Your task to perform on an android device: open the mobile data screen to see how much data has been used Image 0: 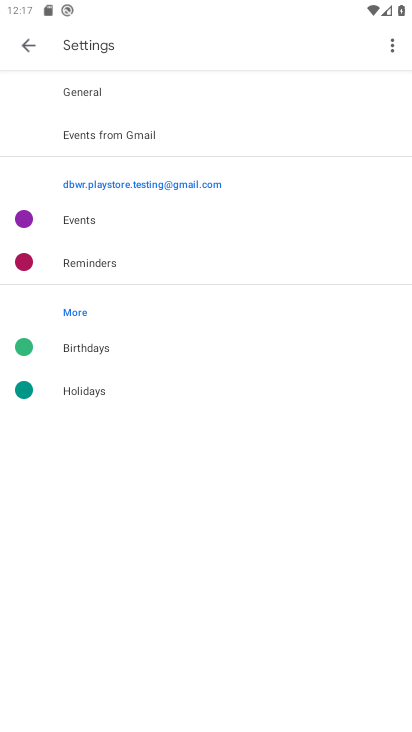
Step 0: press home button
Your task to perform on an android device: open the mobile data screen to see how much data has been used Image 1: 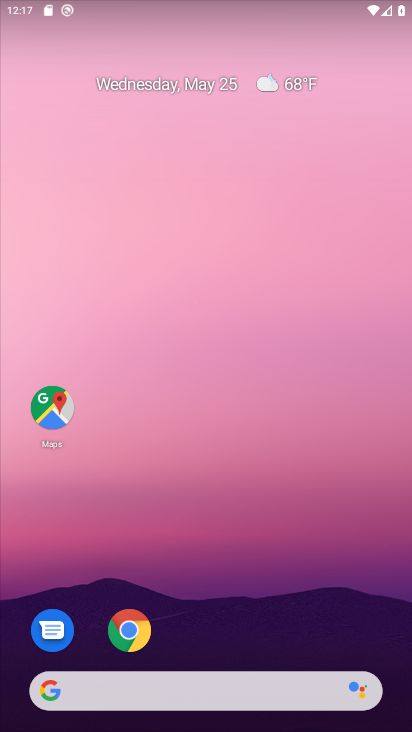
Step 1: drag from (212, 637) to (205, 159)
Your task to perform on an android device: open the mobile data screen to see how much data has been used Image 2: 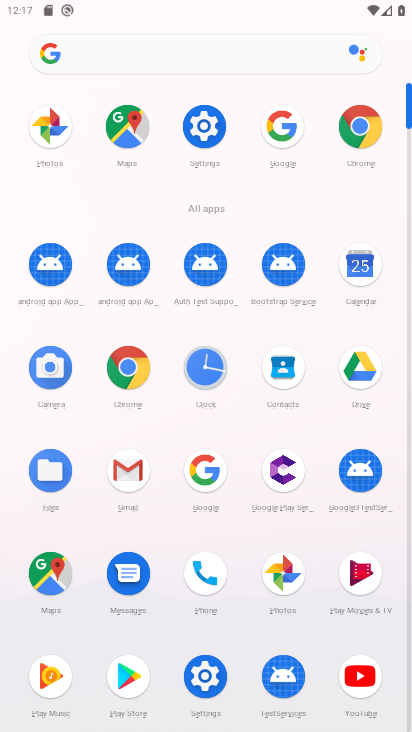
Step 2: click (218, 127)
Your task to perform on an android device: open the mobile data screen to see how much data has been used Image 3: 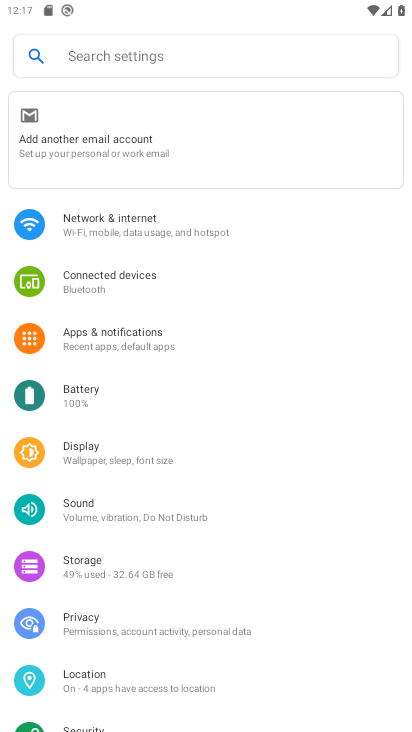
Step 3: click (138, 230)
Your task to perform on an android device: open the mobile data screen to see how much data has been used Image 4: 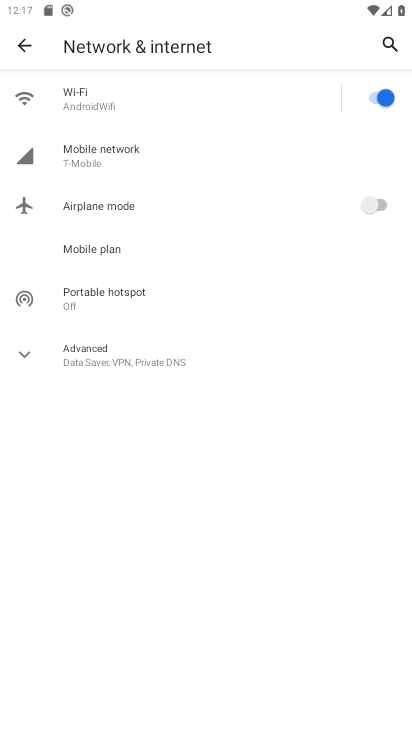
Step 4: click (161, 155)
Your task to perform on an android device: open the mobile data screen to see how much data has been used Image 5: 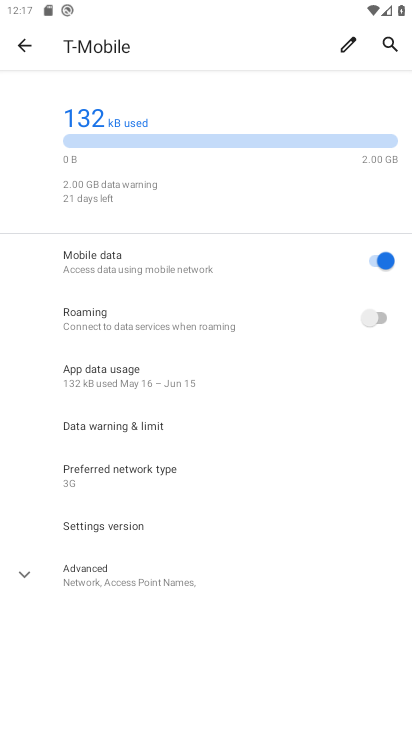
Step 5: task complete